Your task to perform on an android device: Open calendar and show me the first week of next month Image 0: 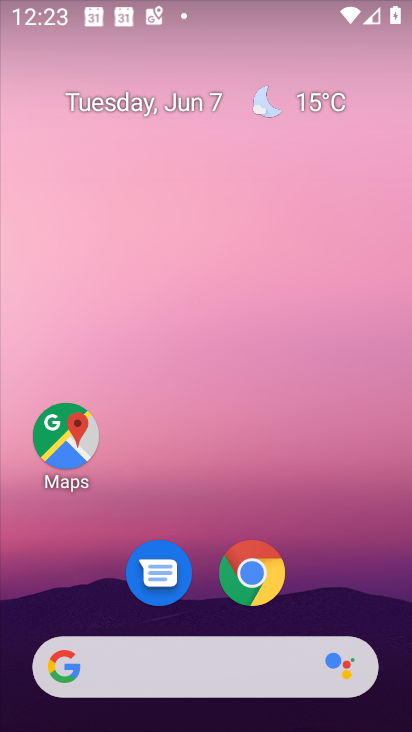
Step 0: drag from (355, 588) to (307, 185)
Your task to perform on an android device: Open calendar and show me the first week of next month Image 1: 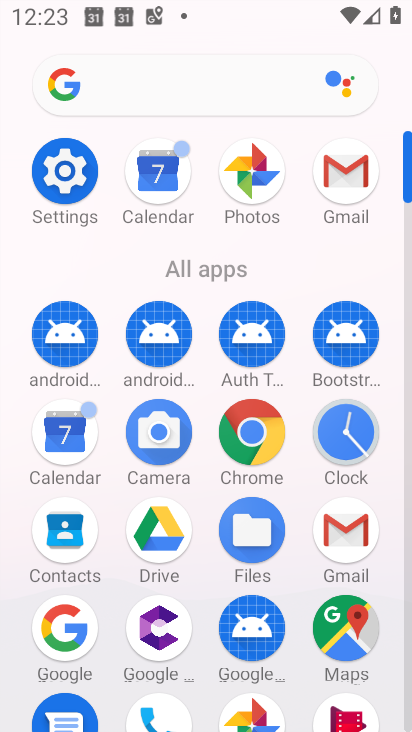
Step 1: click (173, 177)
Your task to perform on an android device: Open calendar and show me the first week of next month Image 2: 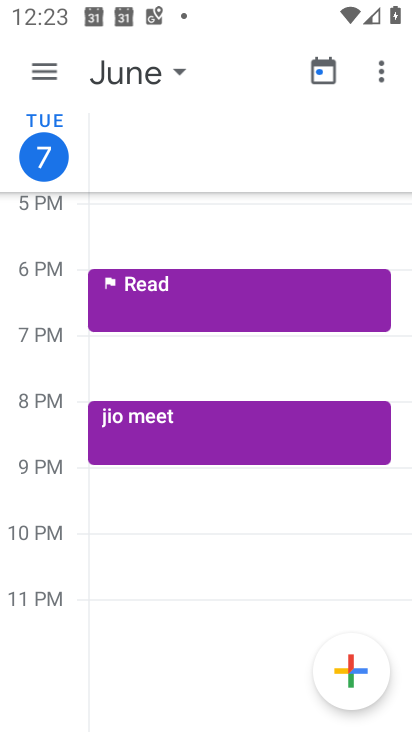
Step 2: click (41, 68)
Your task to perform on an android device: Open calendar and show me the first week of next month Image 3: 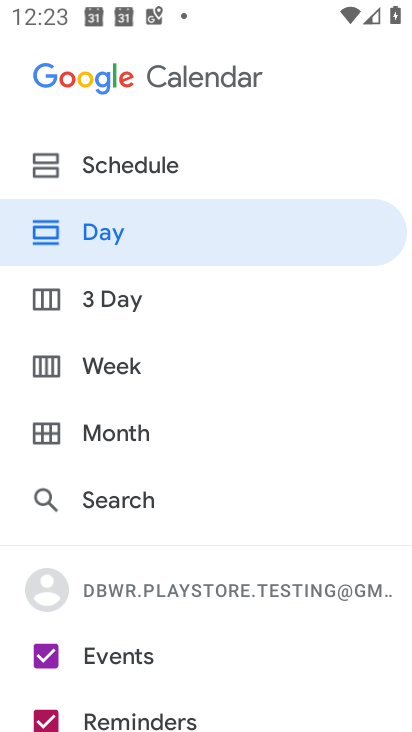
Step 3: click (134, 439)
Your task to perform on an android device: Open calendar and show me the first week of next month Image 4: 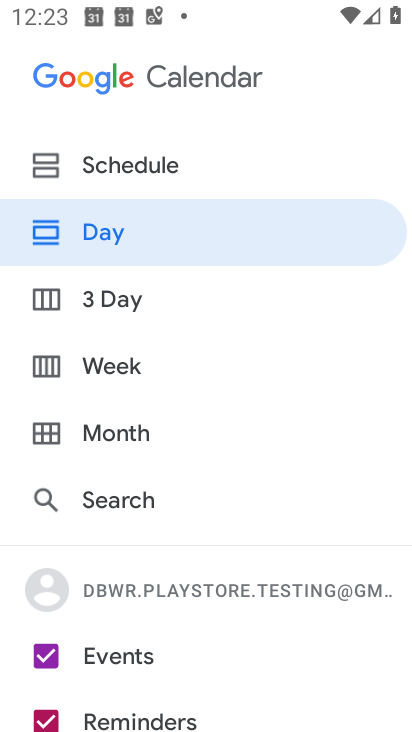
Step 4: click (115, 433)
Your task to perform on an android device: Open calendar and show me the first week of next month Image 5: 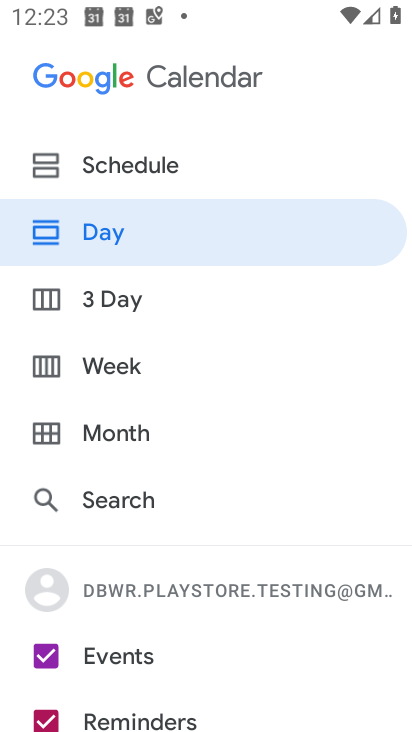
Step 5: click (44, 431)
Your task to perform on an android device: Open calendar and show me the first week of next month Image 6: 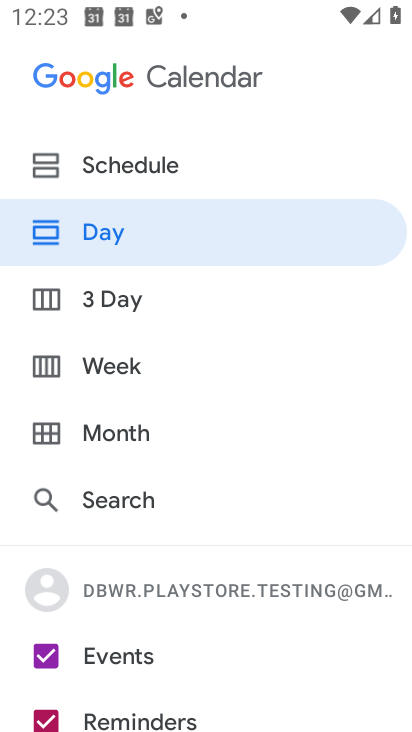
Step 6: click (44, 430)
Your task to perform on an android device: Open calendar and show me the first week of next month Image 7: 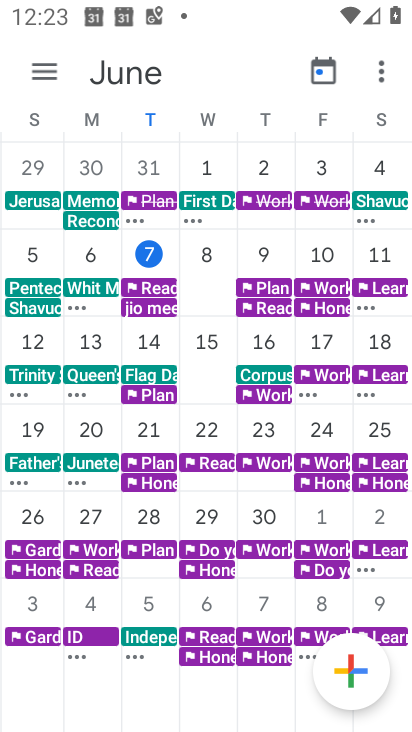
Step 7: drag from (95, 431) to (16, 372)
Your task to perform on an android device: Open calendar and show me the first week of next month Image 8: 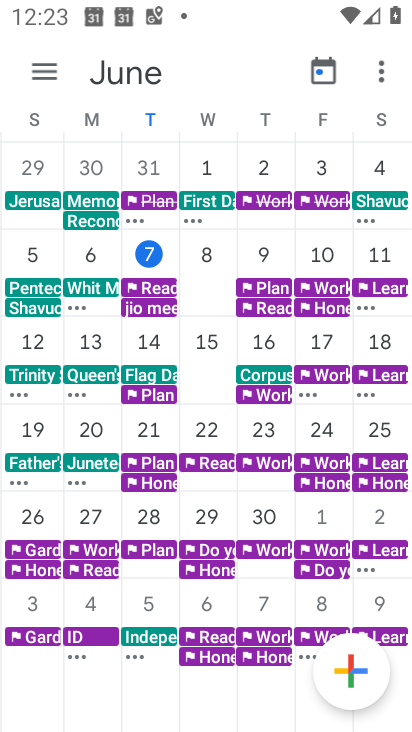
Step 8: drag from (394, 433) to (13, 495)
Your task to perform on an android device: Open calendar and show me the first week of next month Image 9: 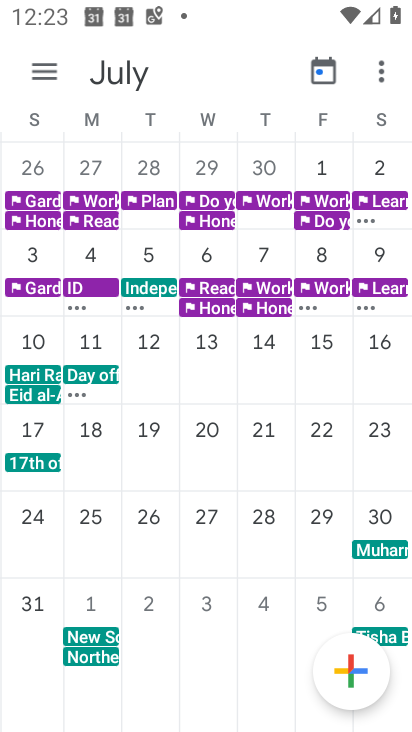
Step 9: click (83, 256)
Your task to perform on an android device: Open calendar and show me the first week of next month Image 10: 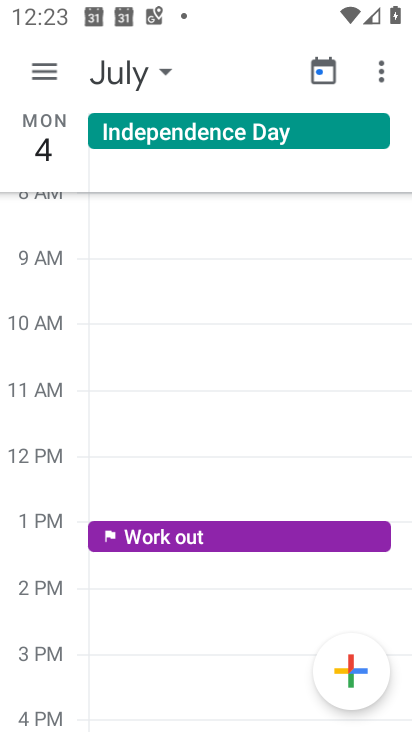
Step 10: click (29, 69)
Your task to perform on an android device: Open calendar and show me the first week of next month Image 11: 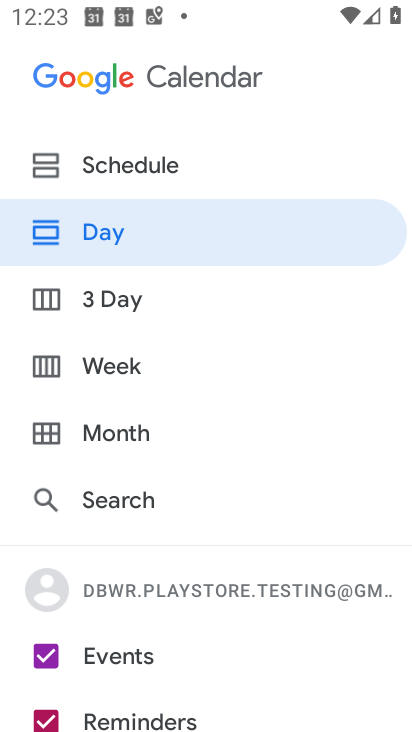
Step 11: click (40, 227)
Your task to perform on an android device: Open calendar and show me the first week of next month Image 12: 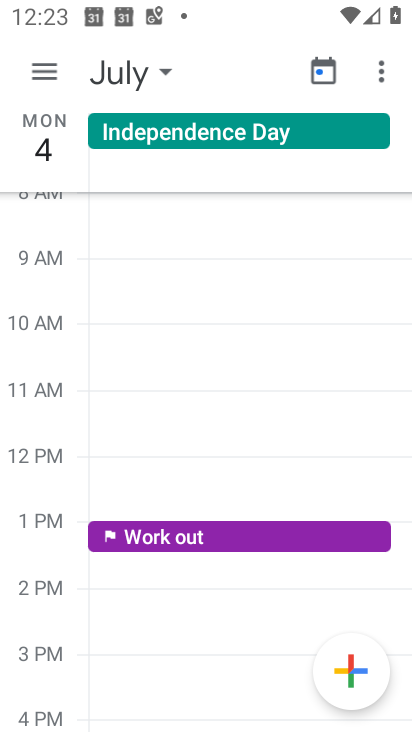
Step 12: click (46, 66)
Your task to perform on an android device: Open calendar and show me the first week of next month Image 13: 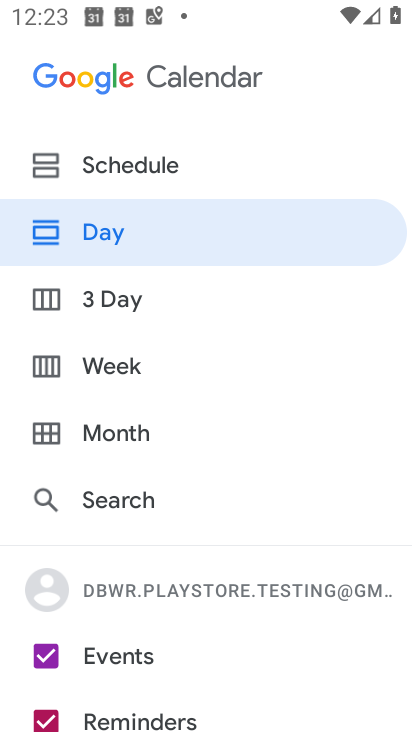
Step 13: click (182, 167)
Your task to perform on an android device: Open calendar and show me the first week of next month Image 14: 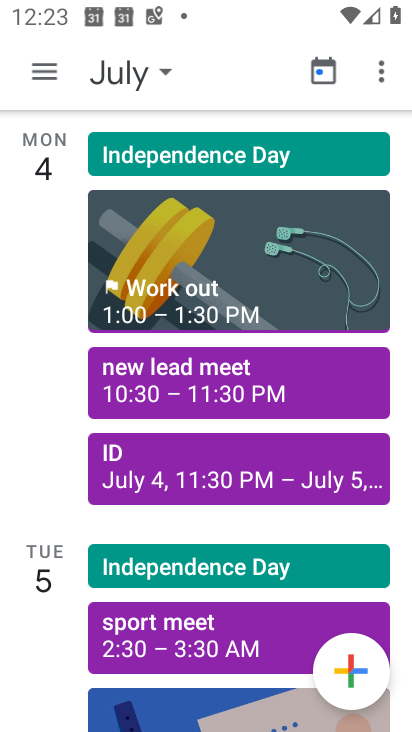
Step 14: task complete